Your task to perform on an android device: What's the time? Image 0: 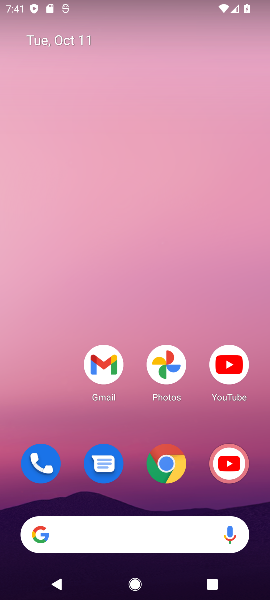
Step 0: drag from (159, 510) to (150, 298)
Your task to perform on an android device: What's the time? Image 1: 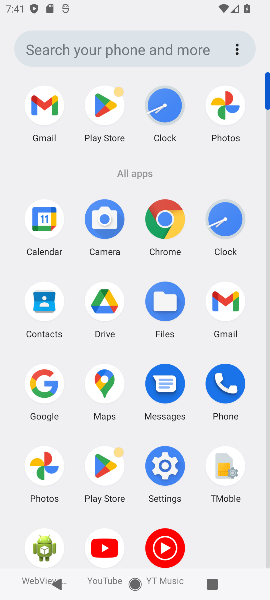
Step 1: click (219, 218)
Your task to perform on an android device: What's the time? Image 2: 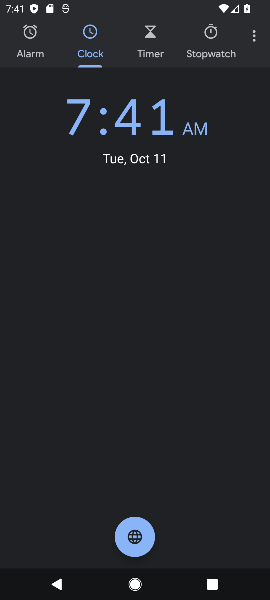
Step 2: task complete